Your task to perform on an android device: Go to calendar. Show me events next week Image 0: 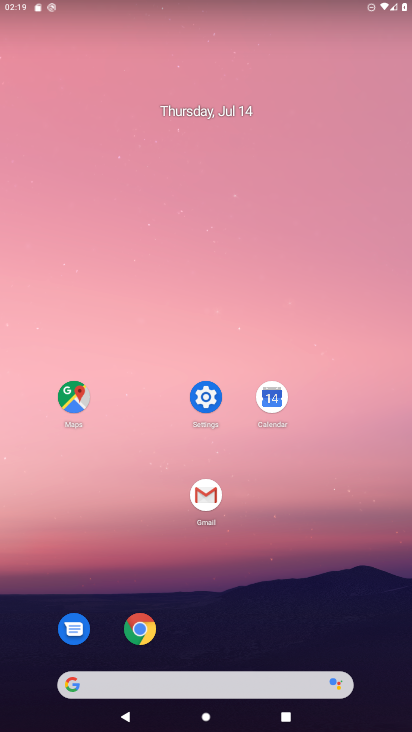
Step 0: drag from (399, 721) to (367, 267)
Your task to perform on an android device: Go to calendar. Show me events next week Image 1: 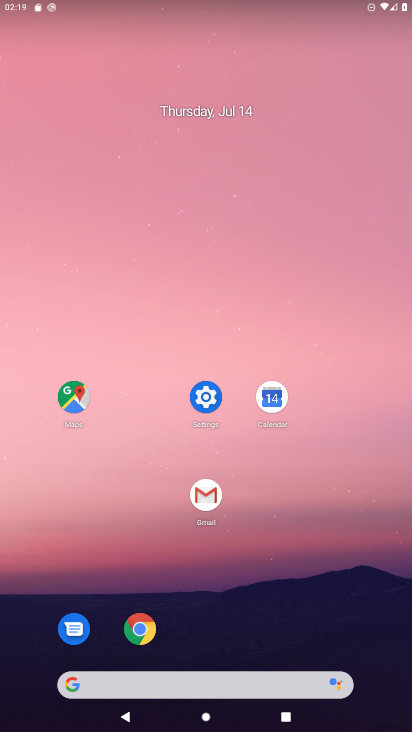
Step 1: drag from (391, 716) to (372, 239)
Your task to perform on an android device: Go to calendar. Show me events next week Image 2: 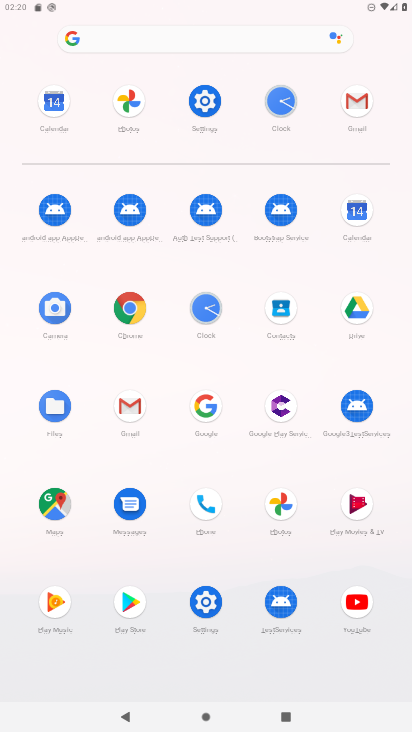
Step 2: click (358, 210)
Your task to perform on an android device: Go to calendar. Show me events next week Image 3: 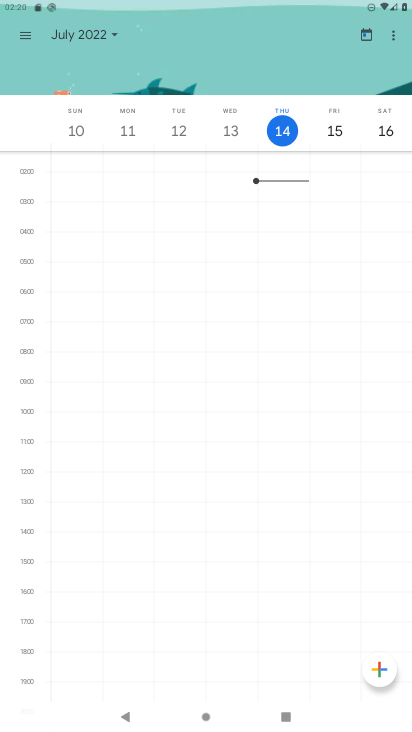
Step 3: click (28, 38)
Your task to perform on an android device: Go to calendar. Show me events next week Image 4: 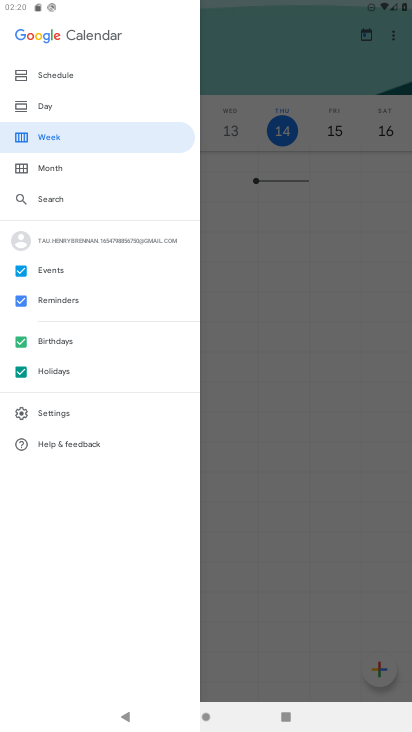
Step 4: click (69, 135)
Your task to perform on an android device: Go to calendar. Show me events next week Image 5: 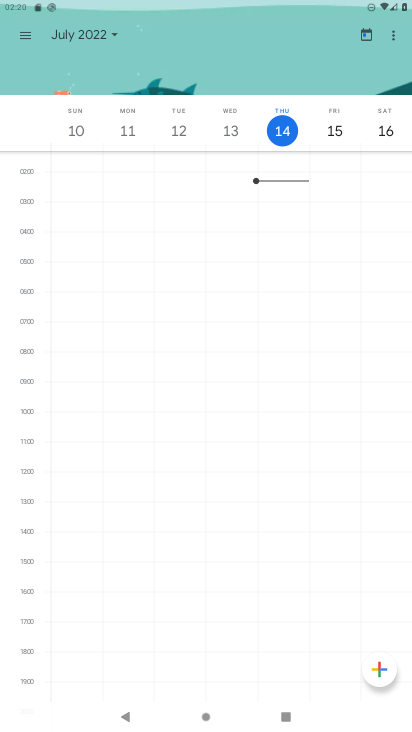
Step 5: click (113, 38)
Your task to perform on an android device: Go to calendar. Show me events next week Image 6: 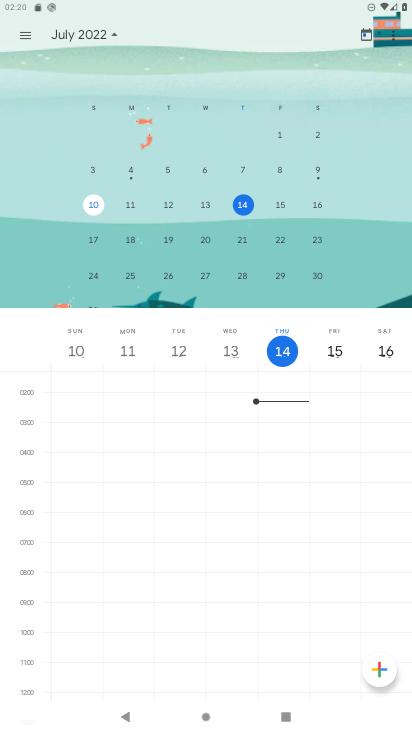
Step 6: click (239, 240)
Your task to perform on an android device: Go to calendar. Show me events next week Image 7: 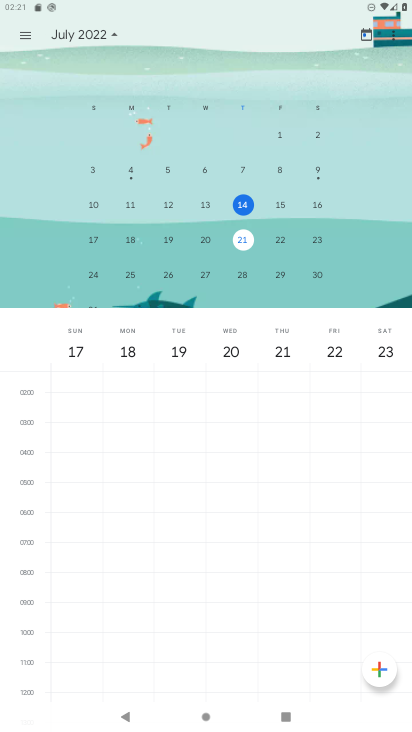
Step 7: click (34, 35)
Your task to perform on an android device: Go to calendar. Show me events next week Image 8: 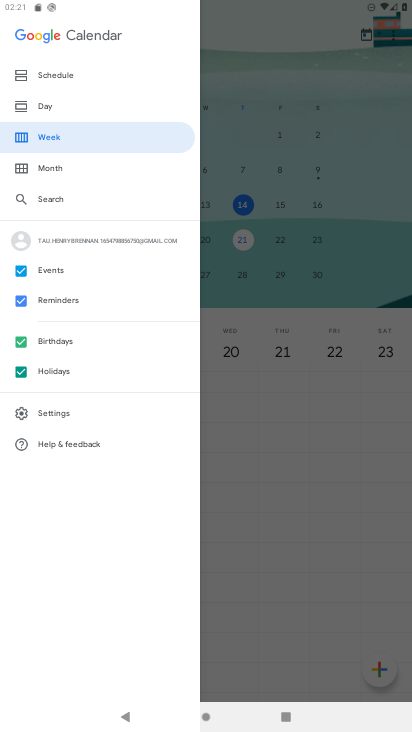
Step 8: click (51, 73)
Your task to perform on an android device: Go to calendar. Show me events next week Image 9: 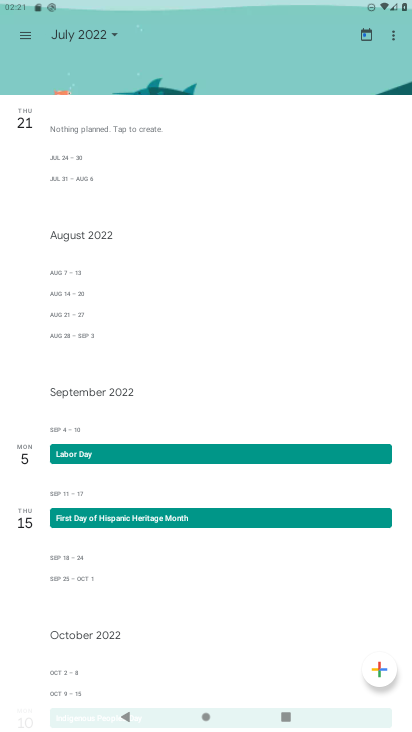
Step 9: task complete